Your task to perform on an android device: Go to accessibility settings Image 0: 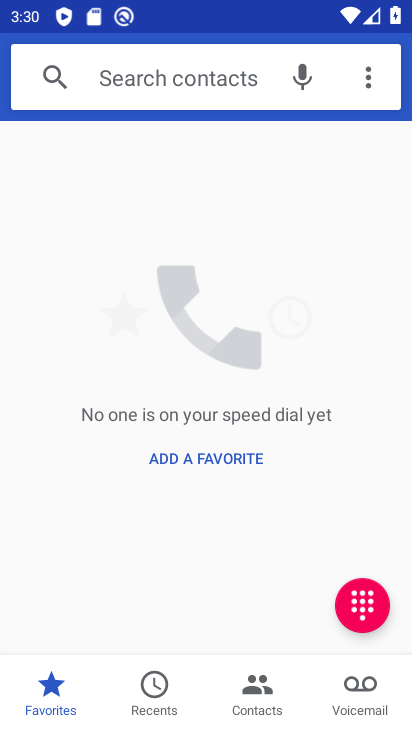
Step 0: press home button
Your task to perform on an android device: Go to accessibility settings Image 1: 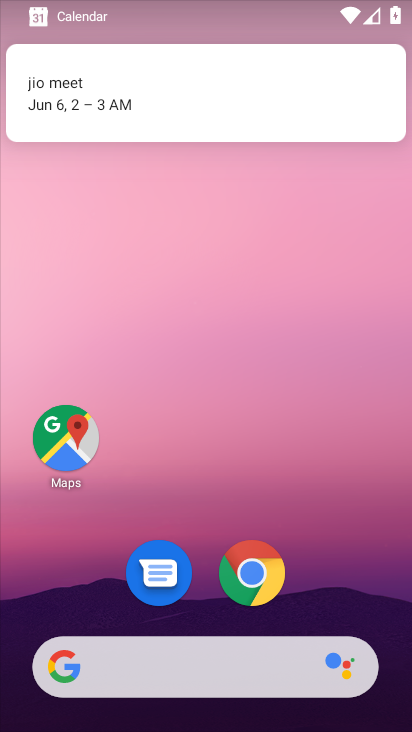
Step 1: drag from (375, 621) to (338, 0)
Your task to perform on an android device: Go to accessibility settings Image 2: 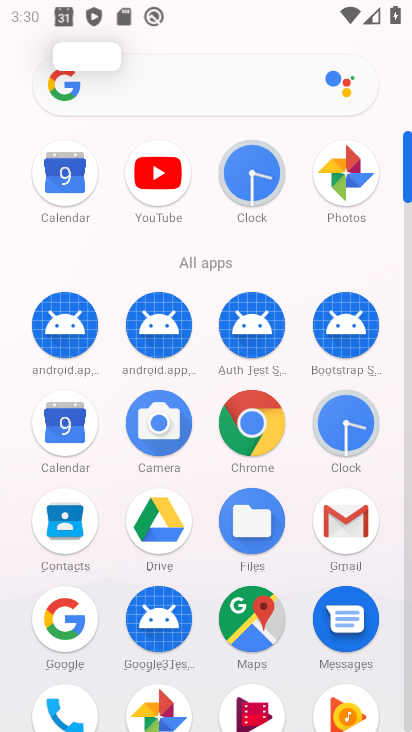
Step 2: click (411, 576)
Your task to perform on an android device: Go to accessibility settings Image 3: 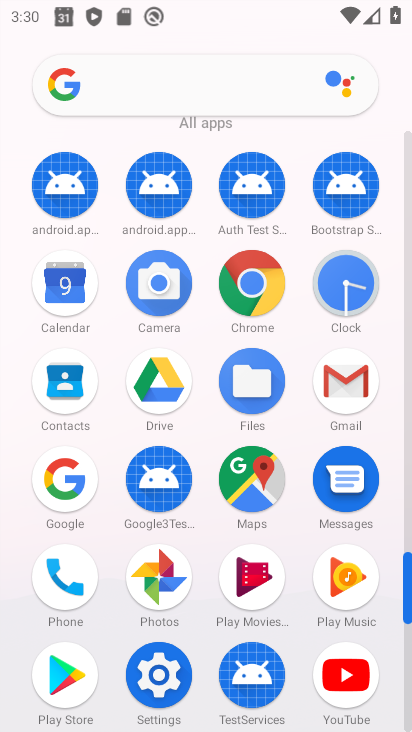
Step 3: click (160, 678)
Your task to perform on an android device: Go to accessibility settings Image 4: 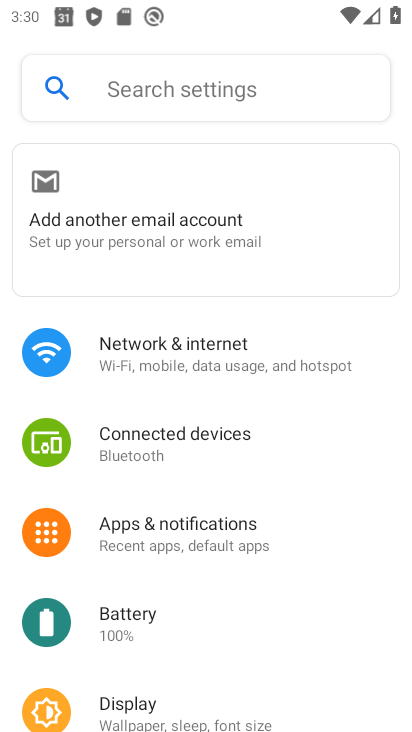
Step 4: drag from (388, 650) to (395, 266)
Your task to perform on an android device: Go to accessibility settings Image 5: 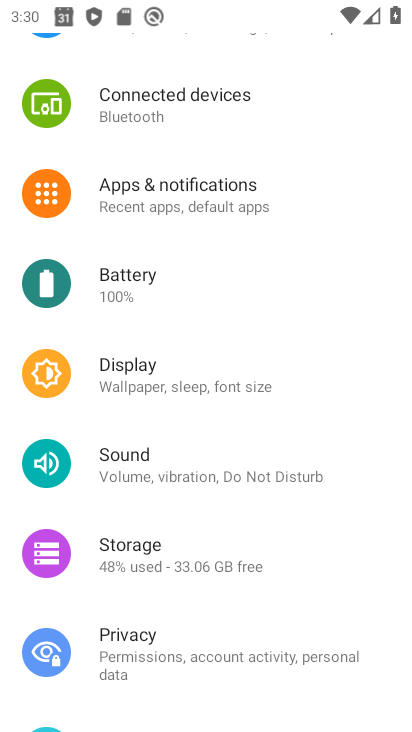
Step 5: drag from (332, 634) to (355, 241)
Your task to perform on an android device: Go to accessibility settings Image 6: 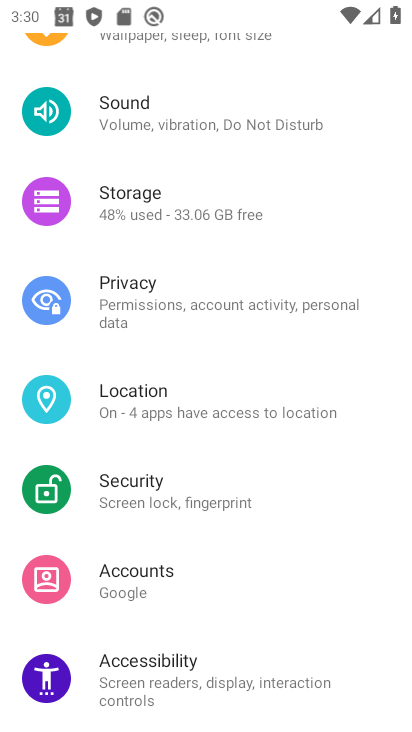
Step 6: click (154, 675)
Your task to perform on an android device: Go to accessibility settings Image 7: 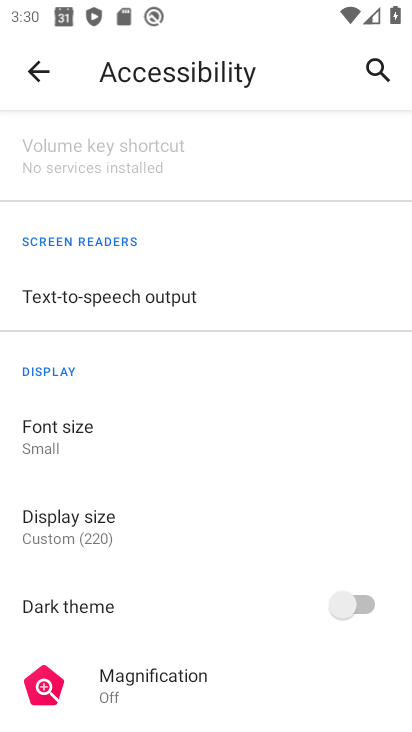
Step 7: task complete